Your task to perform on an android device: Search for a new skincare product Image 0: 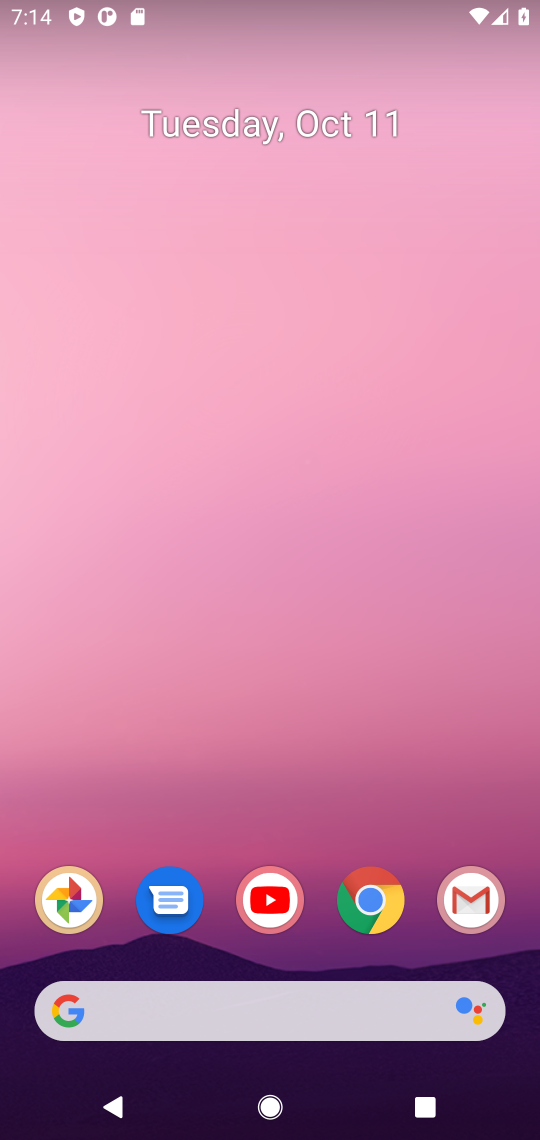
Step 0: click (393, 915)
Your task to perform on an android device: Search for a new skincare product Image 1: 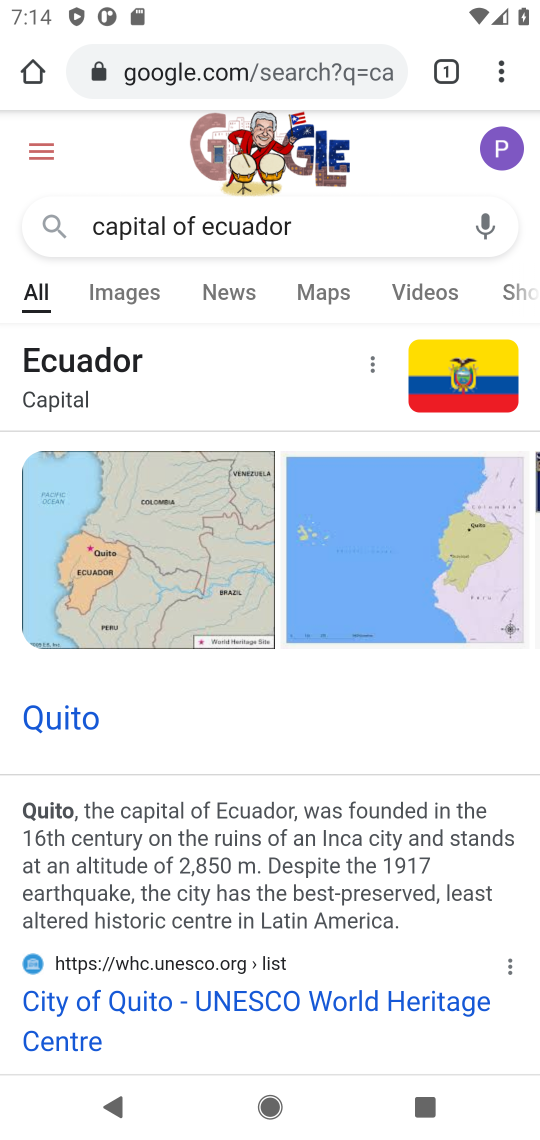
Step 1: click (363, 74)
Your task to perform on an android device: Search for a new skincare product Image 2: 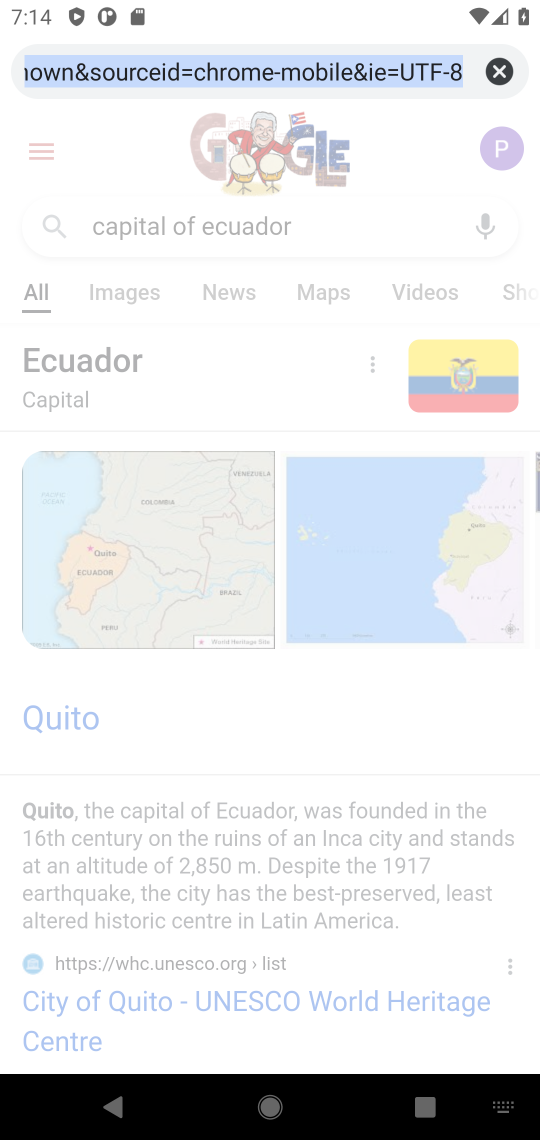
Step 2: click (363, 74)
Your task to perform on an android device: Search for a new skincare product Image 3: 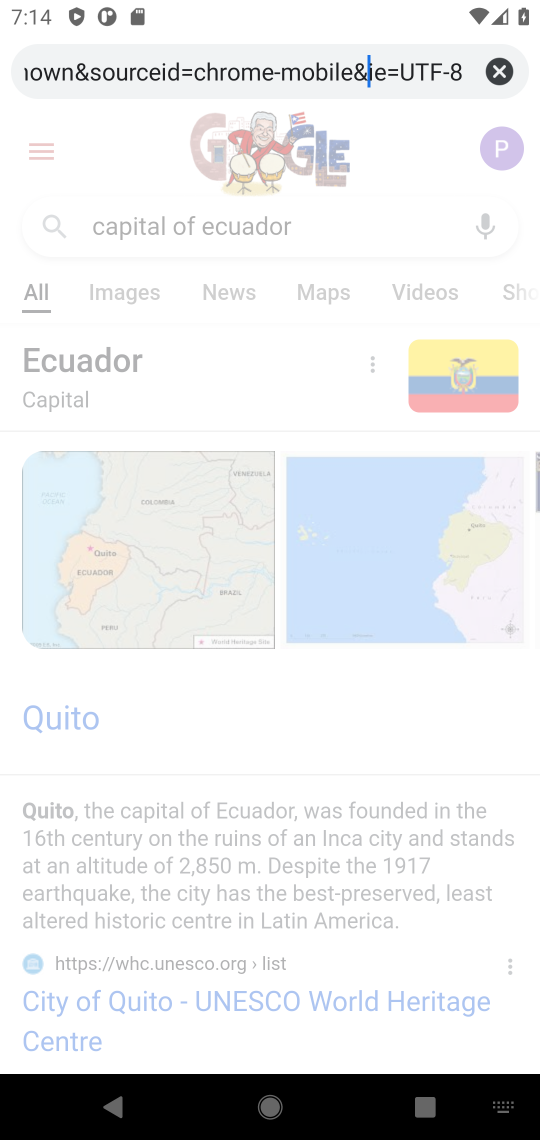
Step 3: click (495, 72)
Your task to perform on an android device: Search for a new skincare product Image 4: 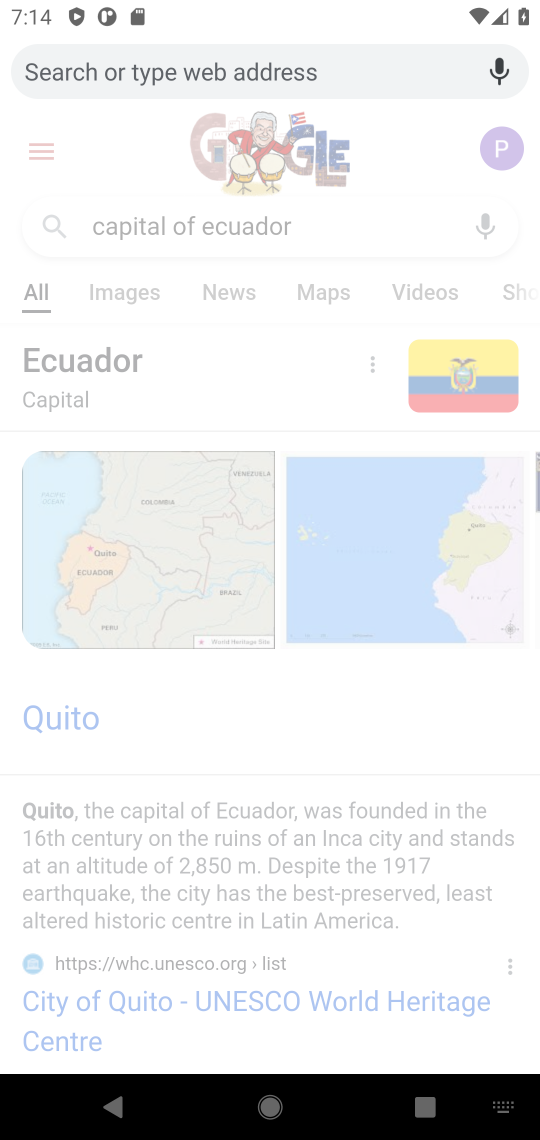
Step 4: type "new skincare product"
Your task to perform on an android device: Search for a new skincare product Image 5: 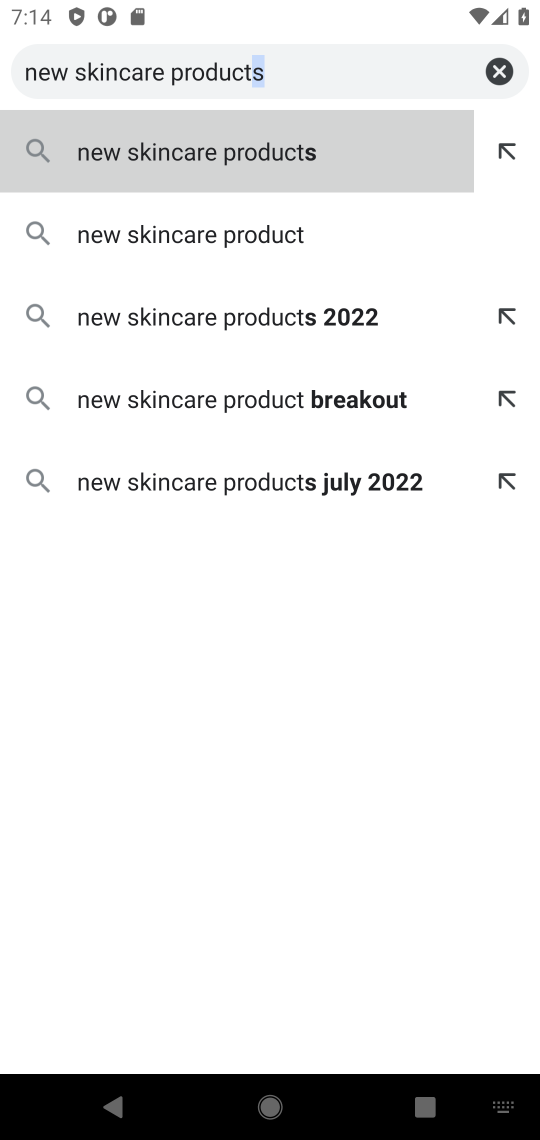
Step 5: click (285, 230)
Your task to perform on an android device: Search for a new skincare product Image 6: 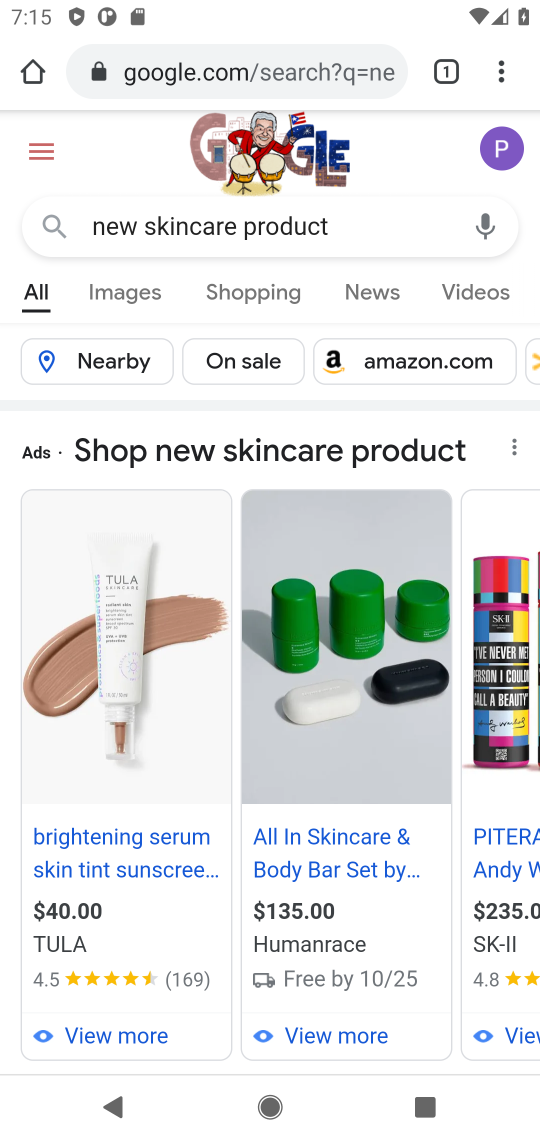
Step 6: task complete